Your task to perform on an android device: Open Google Maps and go to "Timeline" Image 0: 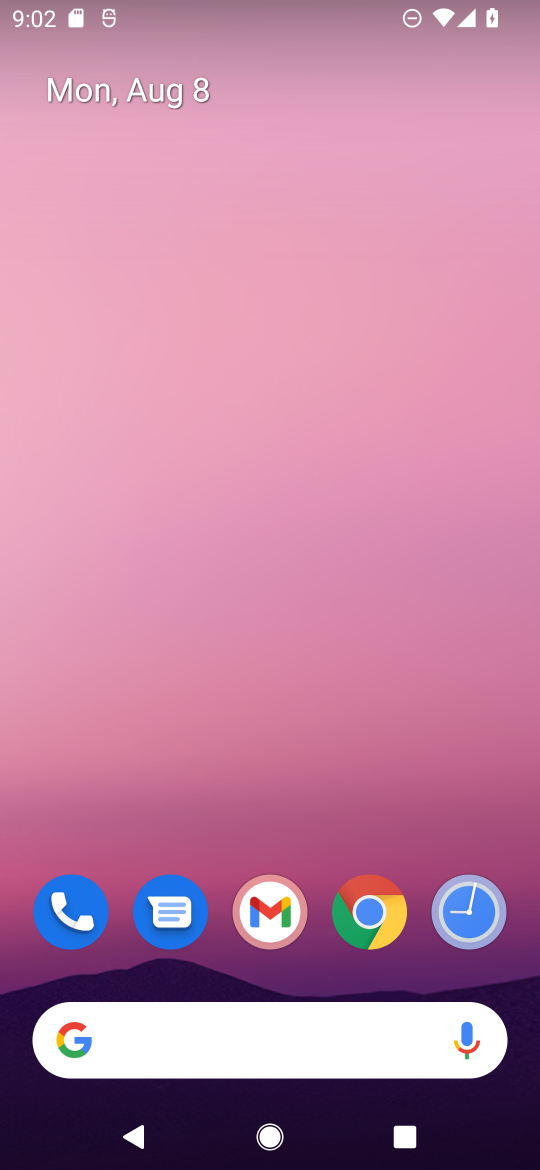
Step 0: drag from (501, 937) to (225, 42)
Your task to perform on an android device: Open Google Maps and go to "Timeline" Image 1: 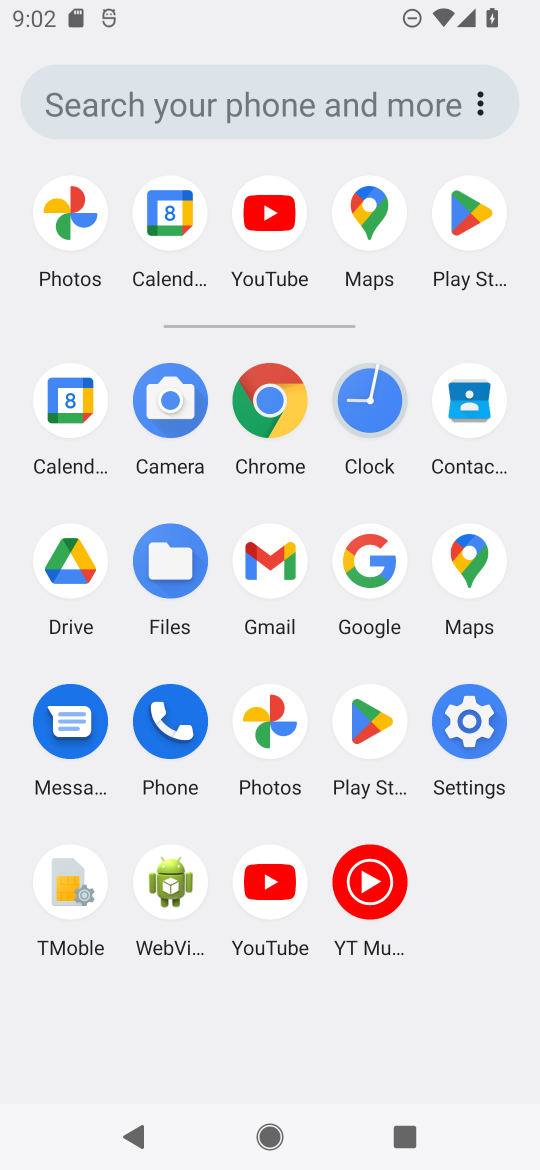
Step 1: click (473, 552)
Your task to perform on an android device: Open Google Maps and go to "Timeline" Image 2: 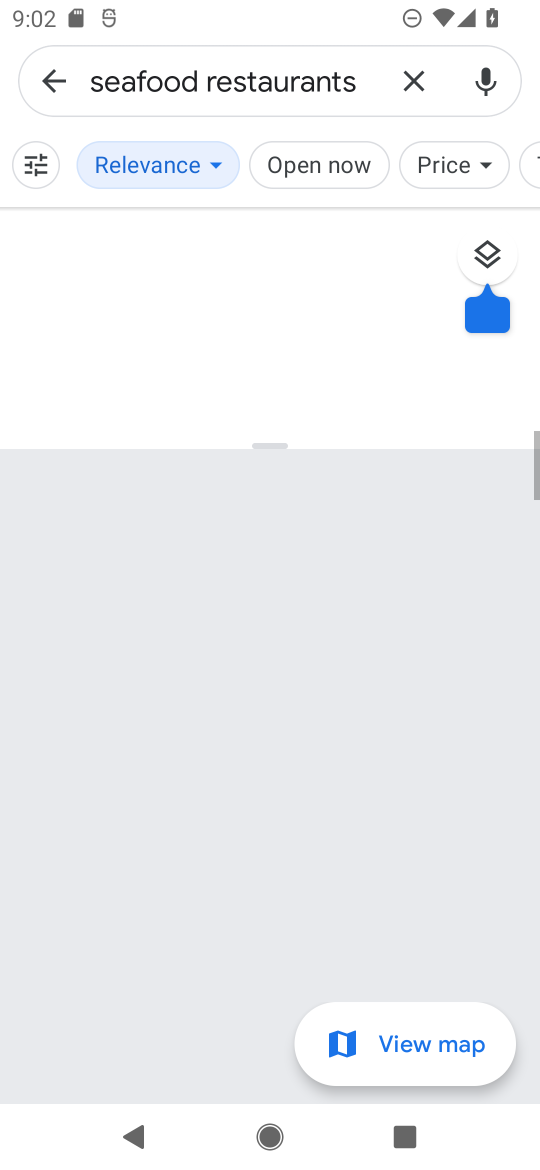
Step 2: click (411, 73)
Your task to perform on an android device: Open Google Maps and go to "Timeline" Image 3: 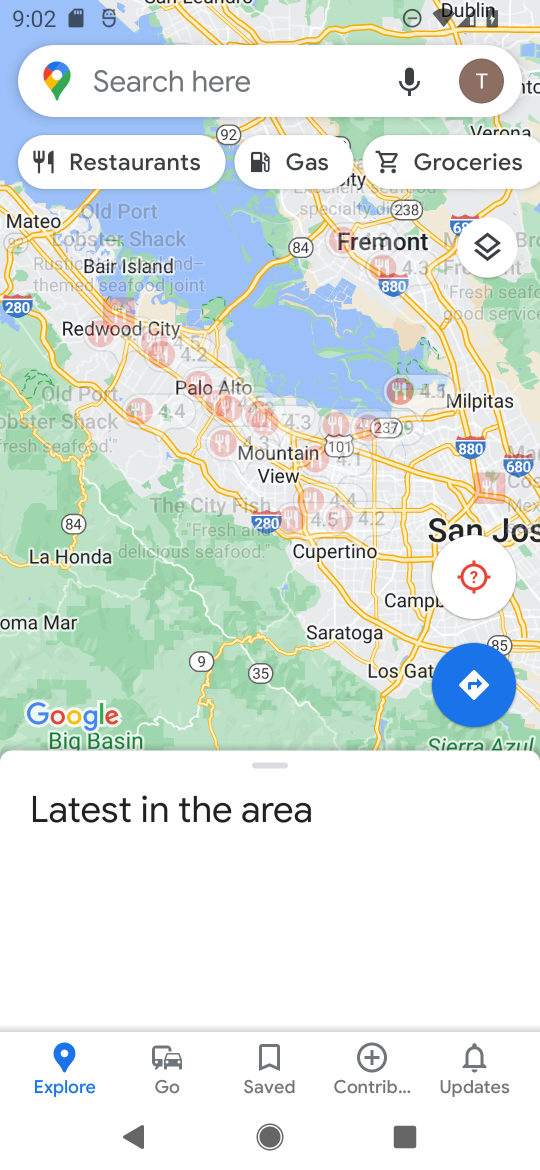
Step 3: click (494, 87)
Your task to perform on an android device: Open Google Maps and go to "Timeline" Image 4: 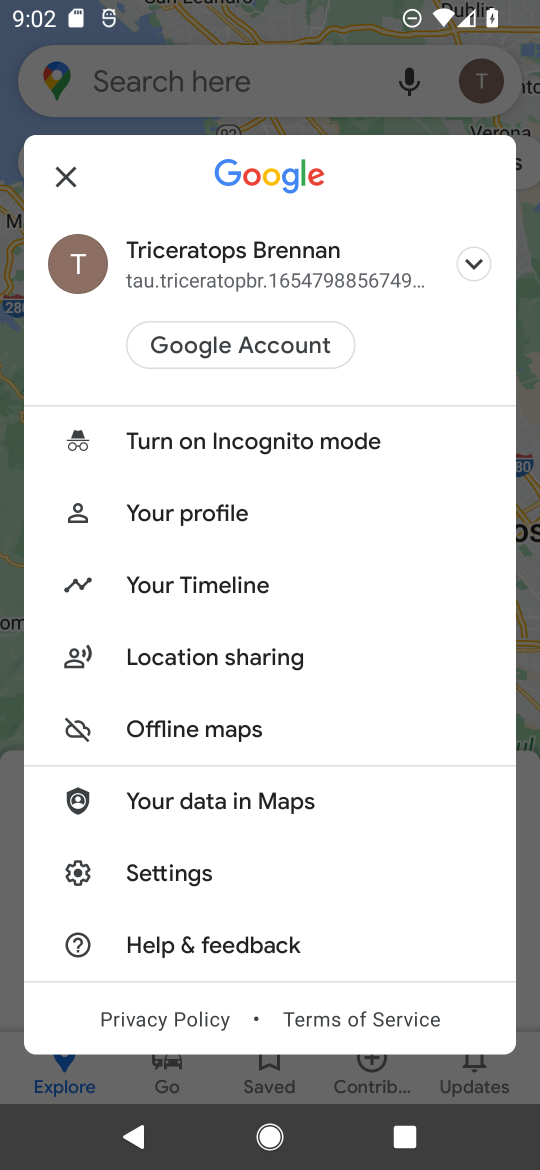
Step 4: click (242, 588)
Your task to perform on an android device: Open Google Maps and go to "Timeline" Image 5: 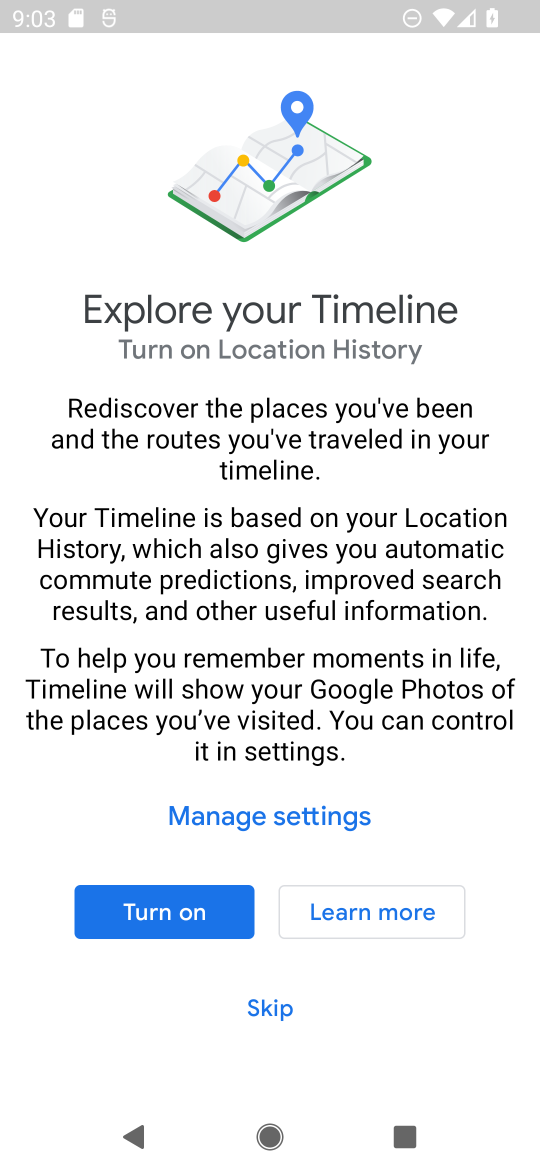
Step 5: task complete